Your task to perform on an android device: Open Google Chrome and click the shortcut for Amazon.com Image 0: 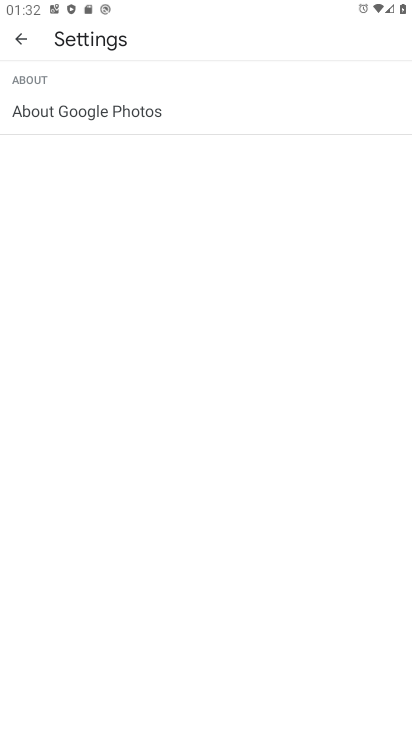
Step 0: press home button
Your task to perform on an android device: Open Google Chrome and click the shortcut for Amazon.com Image 1: 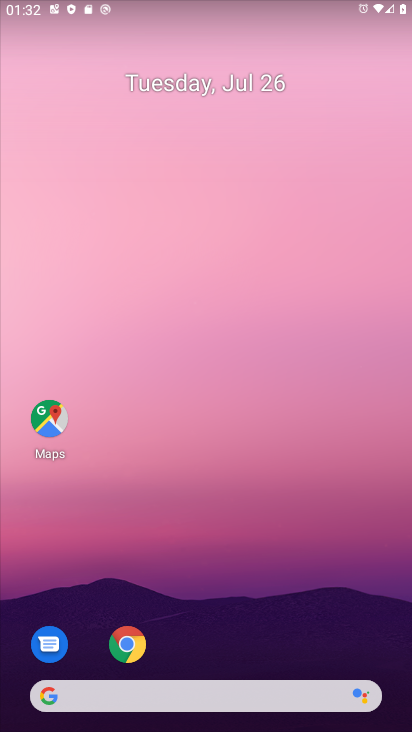
Step 1: drag from (203, 688) to (260, 286)
Your task to perform on an android device: Open Google Chrome and click the shortcut for Amazon.com Image 2: 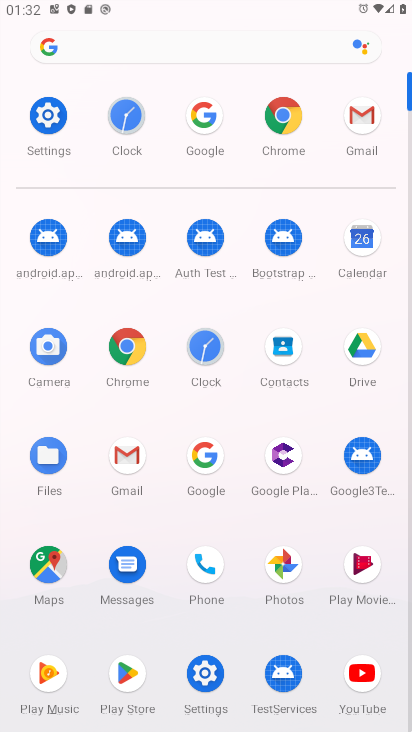
Step 2: click (272, 113)
Your task to perform on an android device: Open Google Chrome and click the shortcut for Amazon.com Image 3: 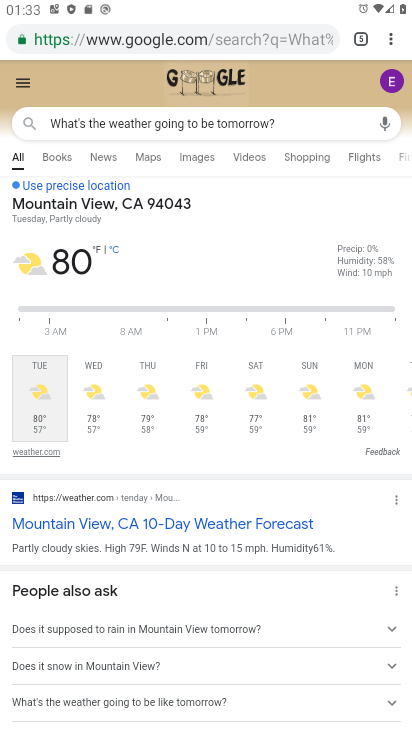
Step 3: click (401, 42)
Your task to perform on an android device: Open Google Chrome and click the shortcut for Amazon.com Image 4: 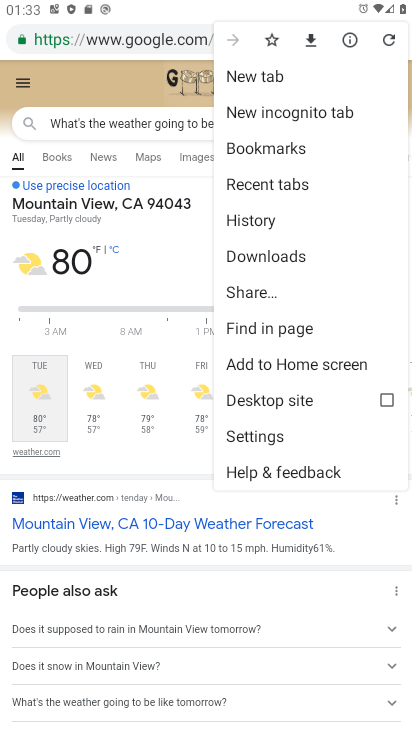
Step 4: click (263, 74)
Your task to perform on an android device: Open Google Chrome and click the shortcut for Amazon.com Image 5: 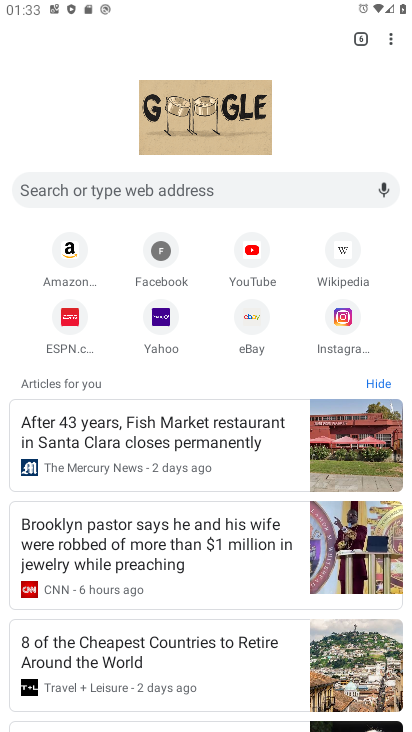
Step 5: click (77, 251)
Your task to perform on an android device: Open Google Chrome and click the shortcut for Amazon.com Image 6: 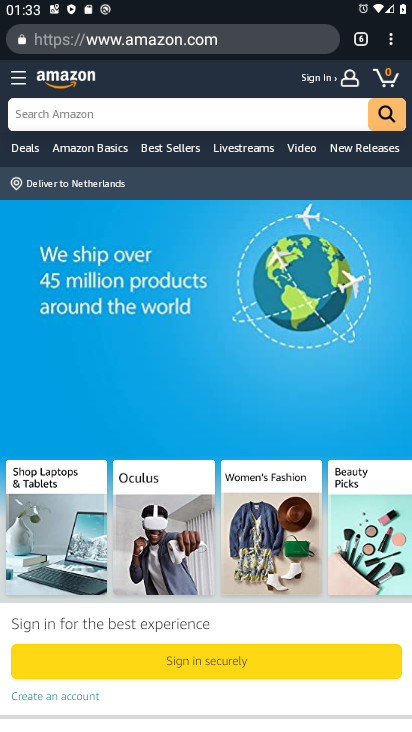
Step 6: task complete